Your task to perform on an android device: open a bookmark in the chrome app Image 0: 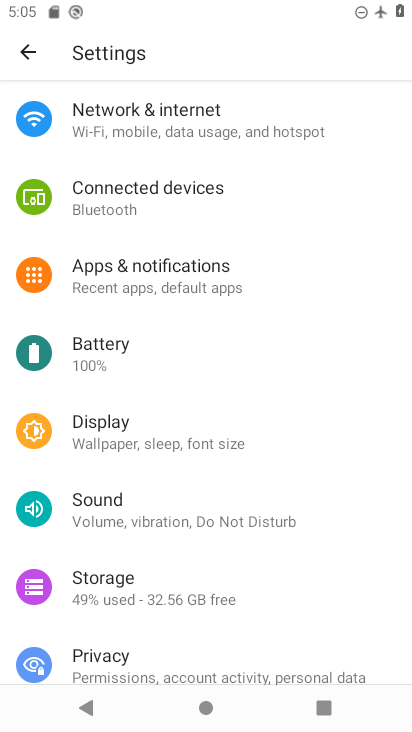
Step 0: press back button
Your task to perform on an android device: open a bookmark in the chrome app Image 1: 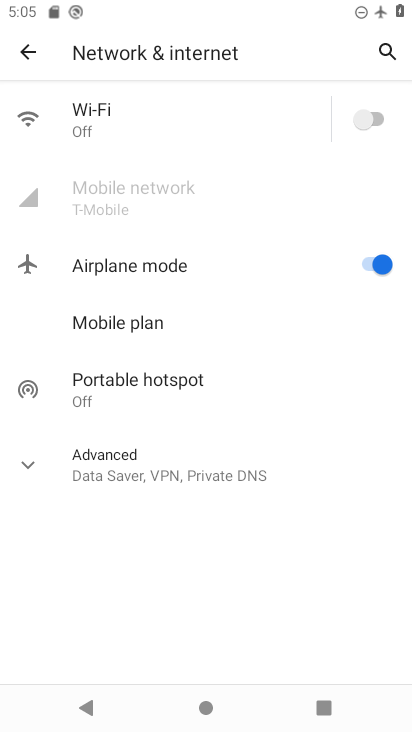
Step 1: click (32, 47)
Your task to perform on an android device: open a bookmark in the chrome app Image 2: 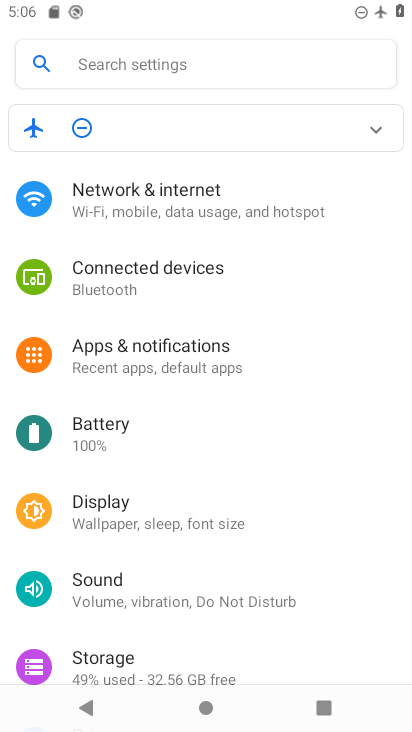
Step 2: press back button
Your task to perform on an android device: open a bookmark in the chrome app Image 3: 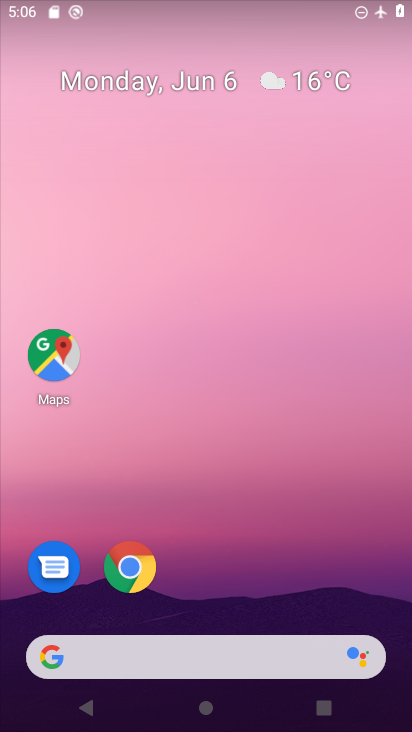
Step 3: drag from (248, 373) to (232, 135)
Your task to perform on an android device: open a bookmark in the chrome app Image 4: 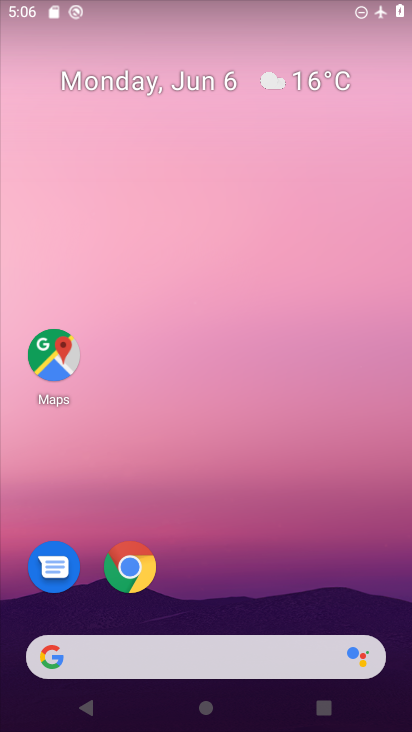
Step 4: drag from (247, 651) to (129, 145)
Your task to perform on an android device: open a bookmark in the chrome app Image 5: 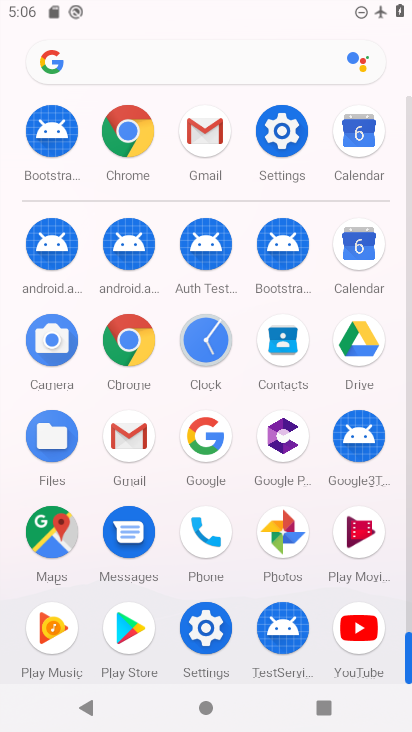
Step 5: click (132, 136)
Your task to perform on an android device: open a bookmark in the chrome app Image 6: 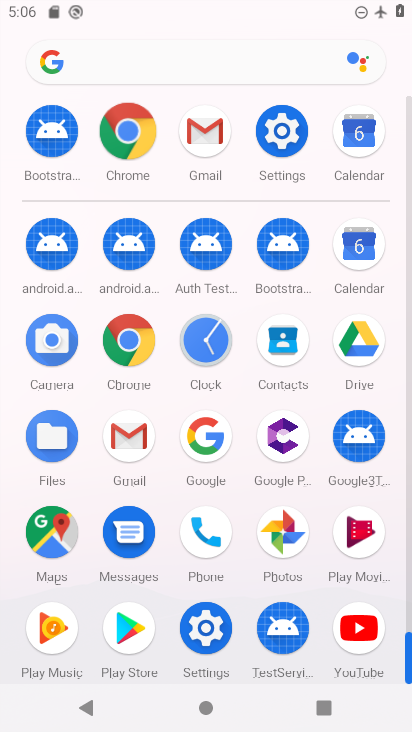
Step 6: click (137, 140)
Your task to perform on an android device: open a bookmark in the chrome app Image 7: 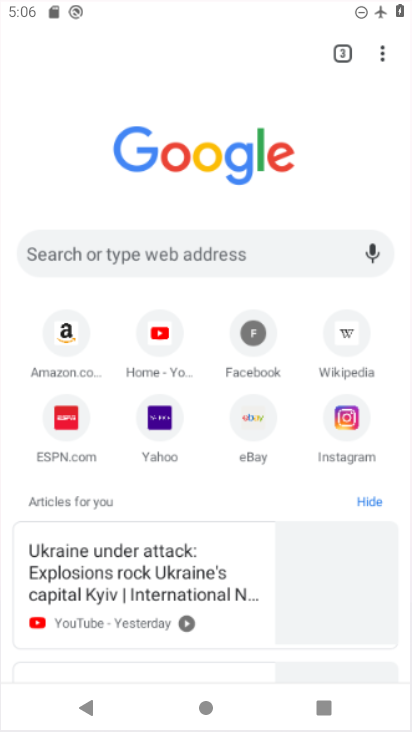
Step 7: click (140, 140)
Your task to perform on an android device: open a bookmark in the chrome app Image 8: 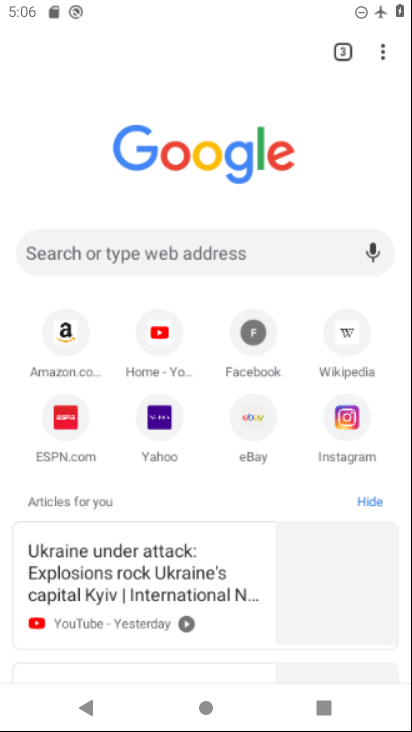
Step 8: click (140, 140)
Your task to perform on an android device: open a bookmark in the chrome app Image 9: 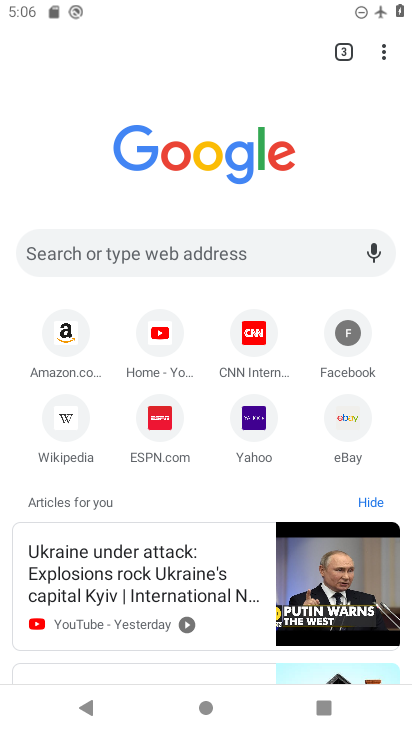
Step 9: drag from (384, 58) to (201, 190)
Your task to perform on an android device: open a bookmark in the chrome app Image 10: 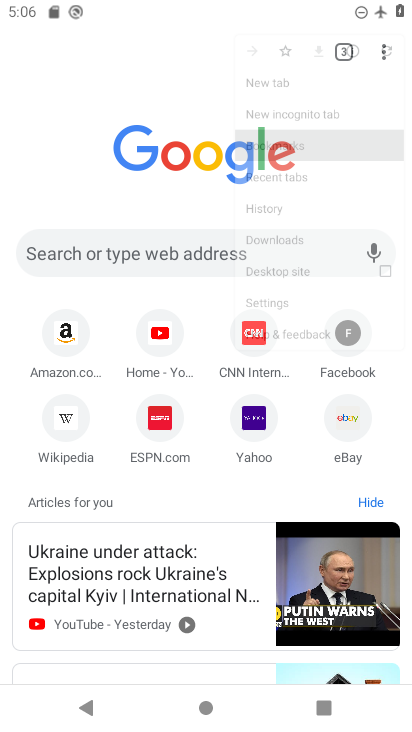
Step 10: click (201, 190)
Your task to perform on an android device: open a bookmark in the chrome app Image 11: 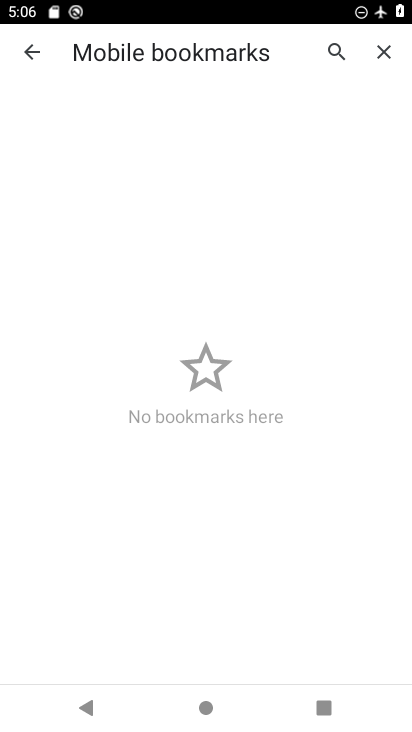
Step 11: task complete